Your task to perform on an android device: add a contact Image 0: 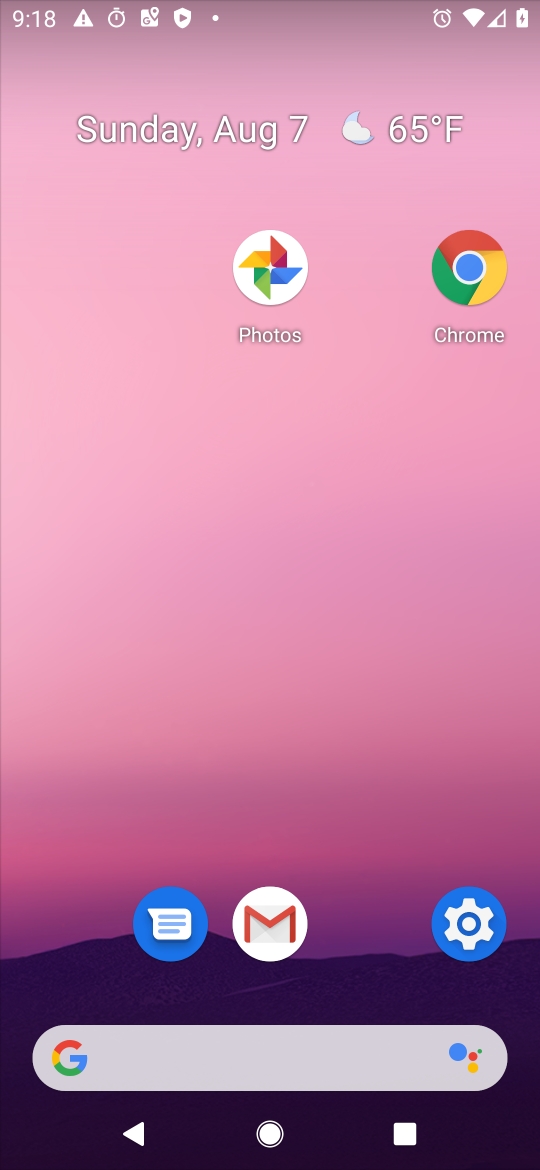
Step 0: drag from (339, 1079) to (386, 191)
Your task to perform on an android device: add a contact Image 1: 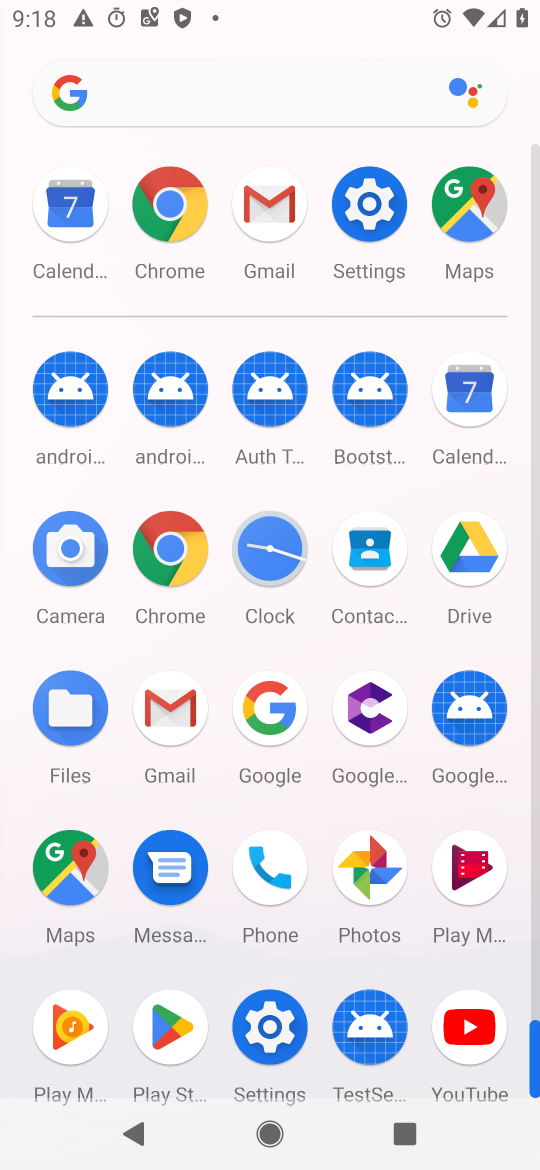
Step 1: click (279, 885)
Your task to perform on an android device: add a contact Image 2: 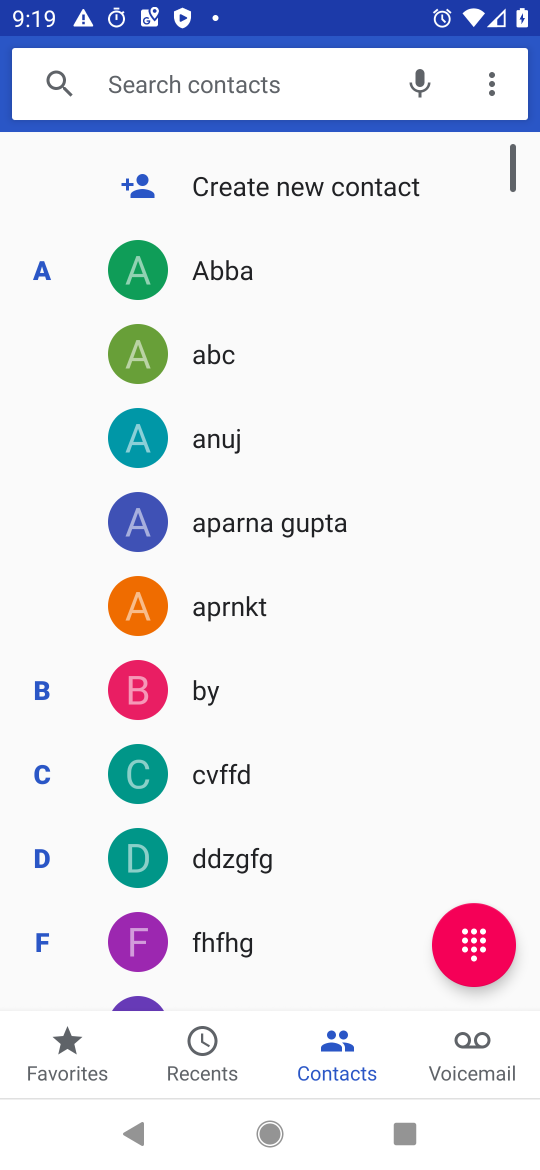
Step 2: click (297, 179)
Your task to perform on an android device: add a contact Image 3: 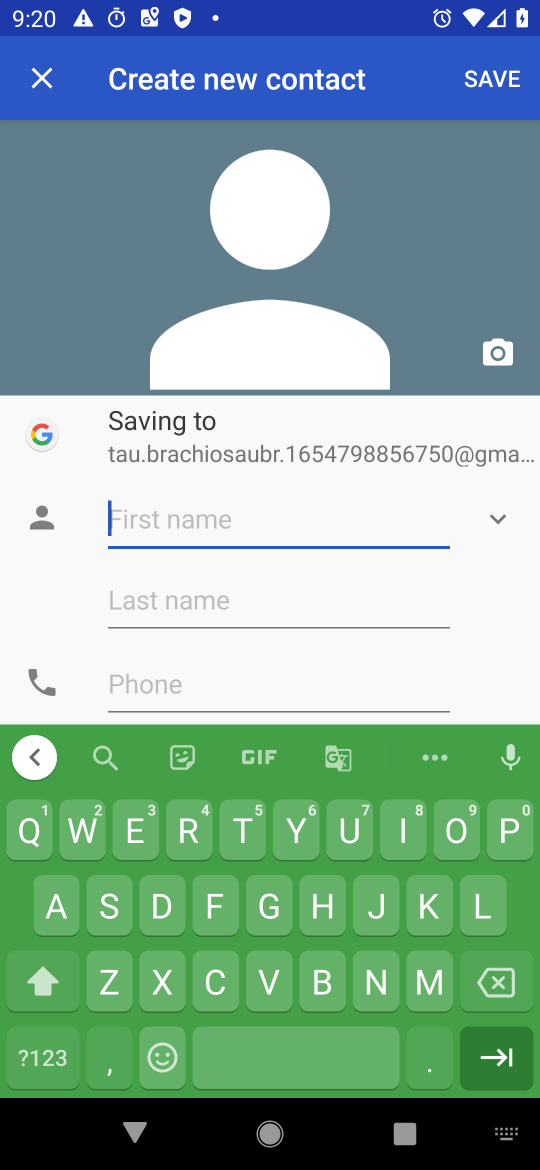
Step 3: click (102, 905)
Your task to perform on an android device: add a contact Image 4: 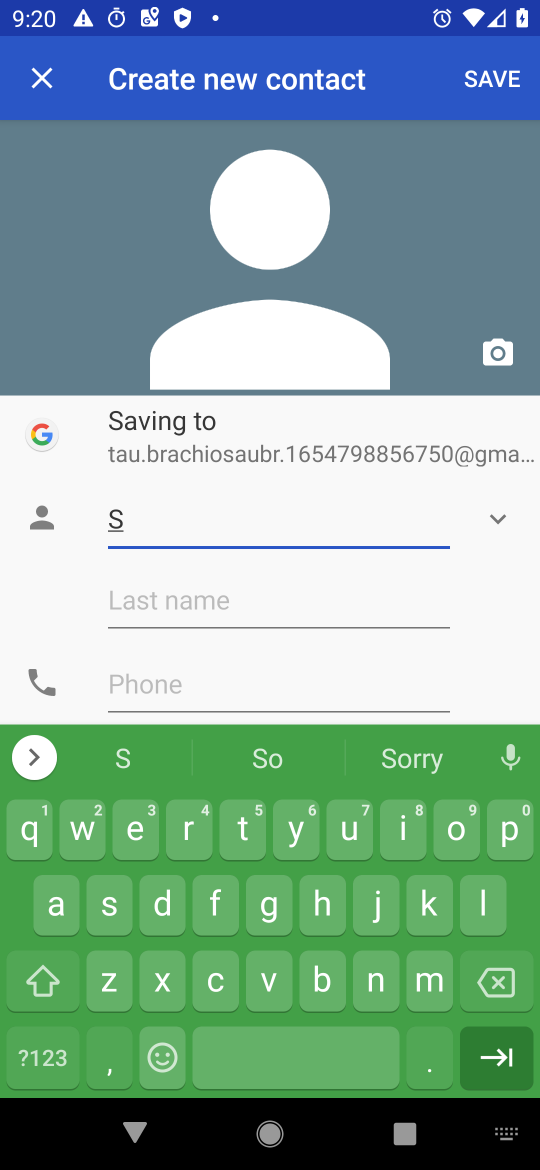
Step 4: click (240, 916)
Your task to perform on an android device: add a contact Image 5: 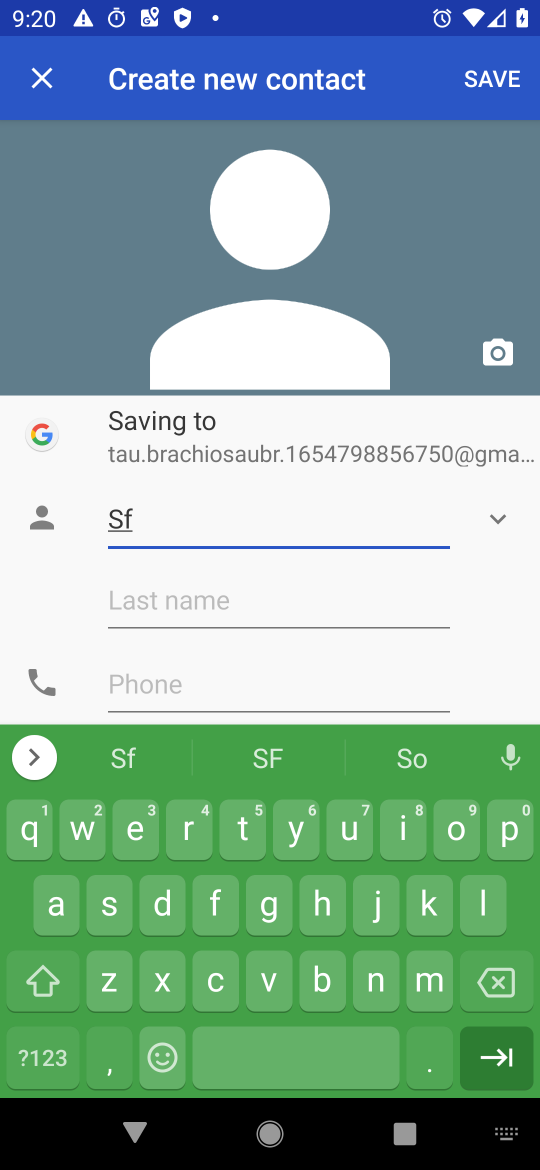
Step 5: click (148, 675)
Your task to perform on an android device: add a contact Image 6: 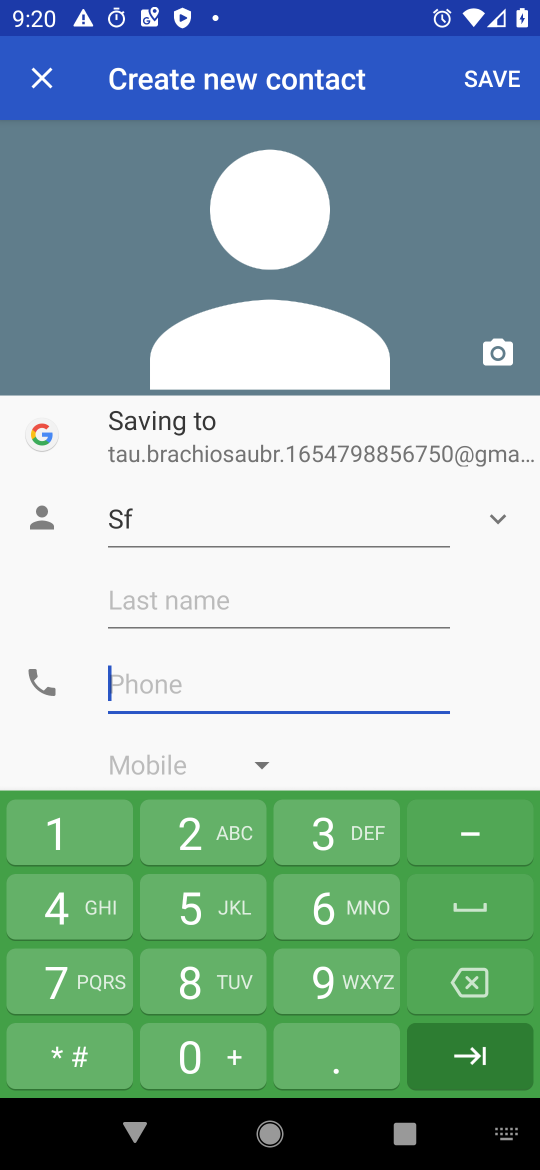
Step 6: click (299, 957)
Your task to perform on an android device: add a contact Image 7: 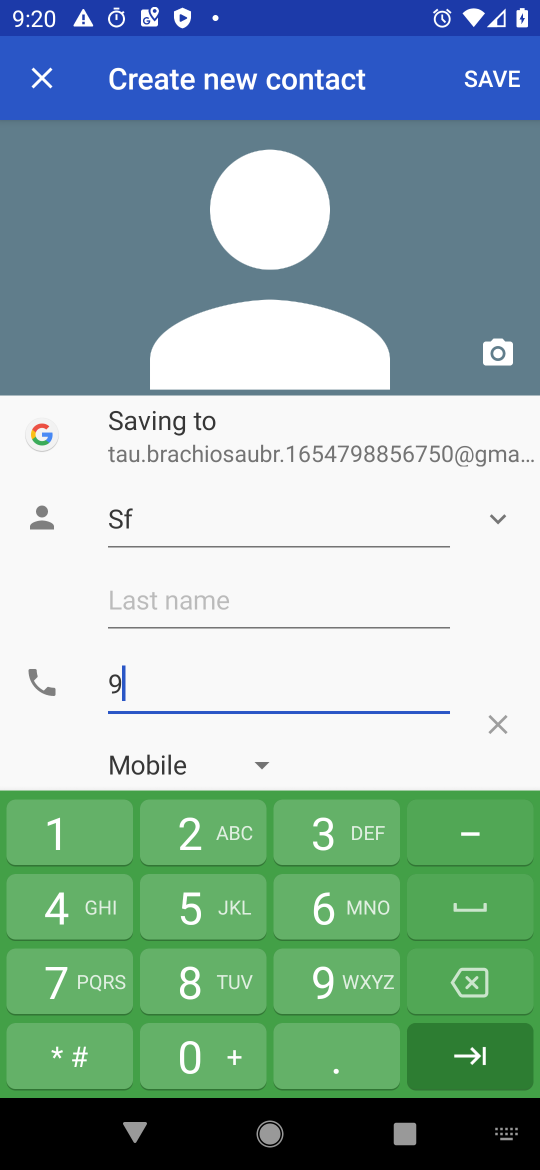
Step 7: click (201, 952)
Your task to perform on an android device: add a contact Image 8: 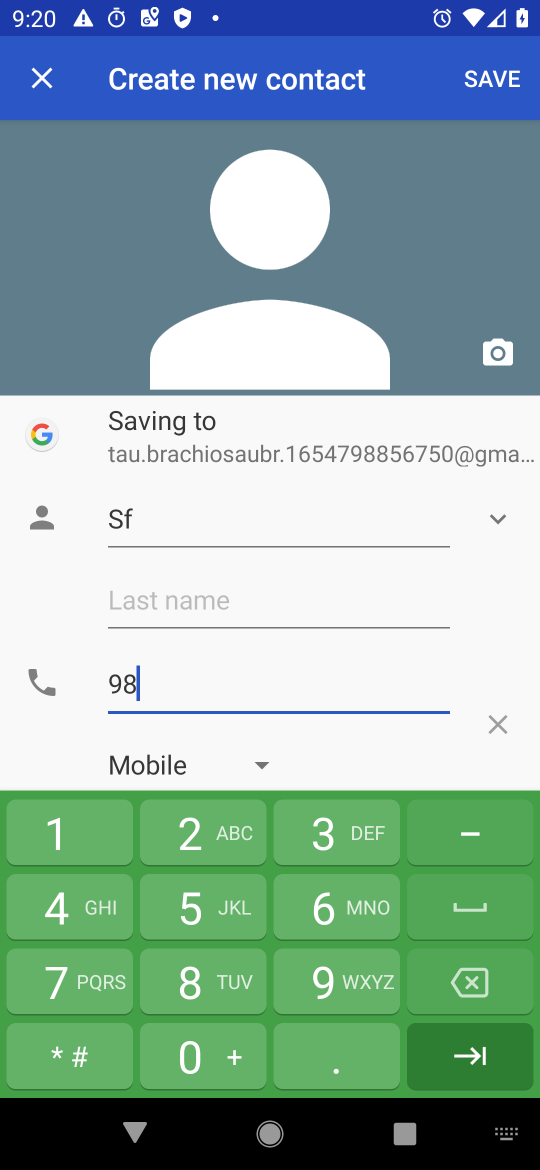
Step 8: click (211, 912)
Your task to perform on an android device: add a contact Image 9: 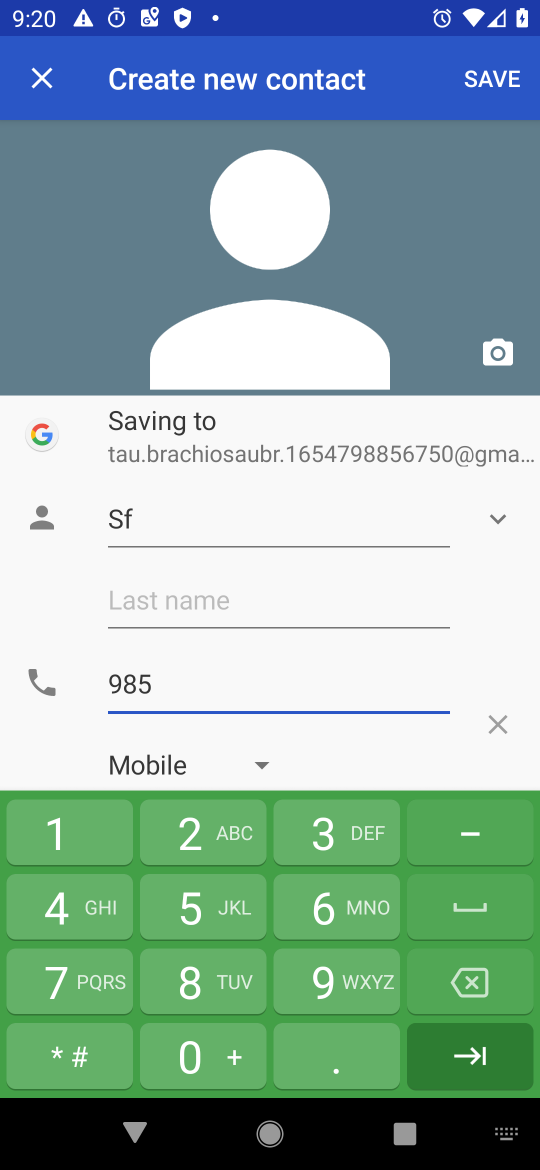
Step 9: click (333, 908)
Your task to perform on an android device: add a contact Image 10: 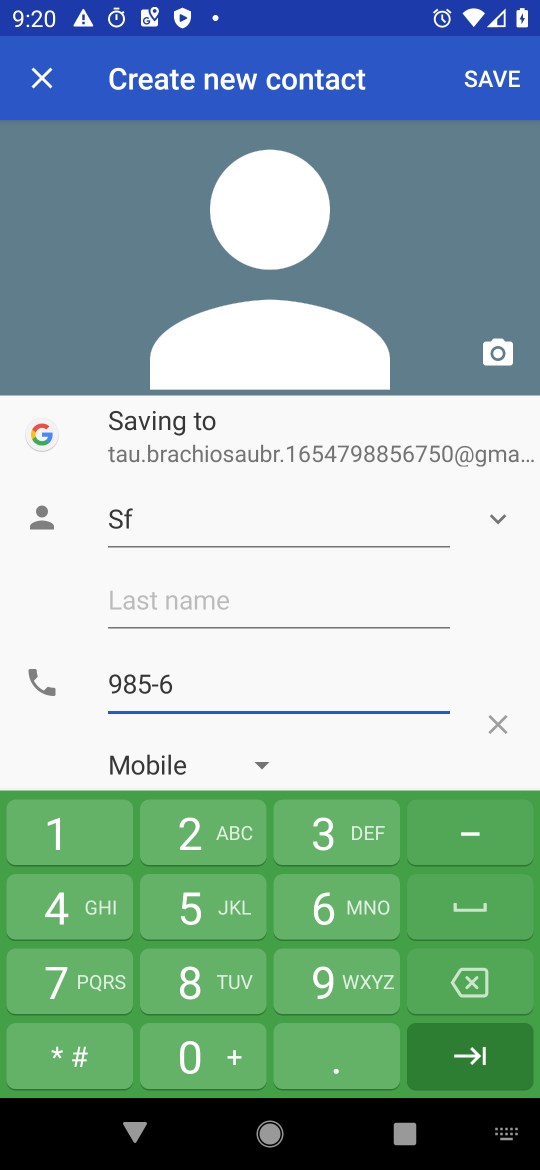
Step 10: click (487, 72)
Your task to perform on an android device: add a contact Image 11: 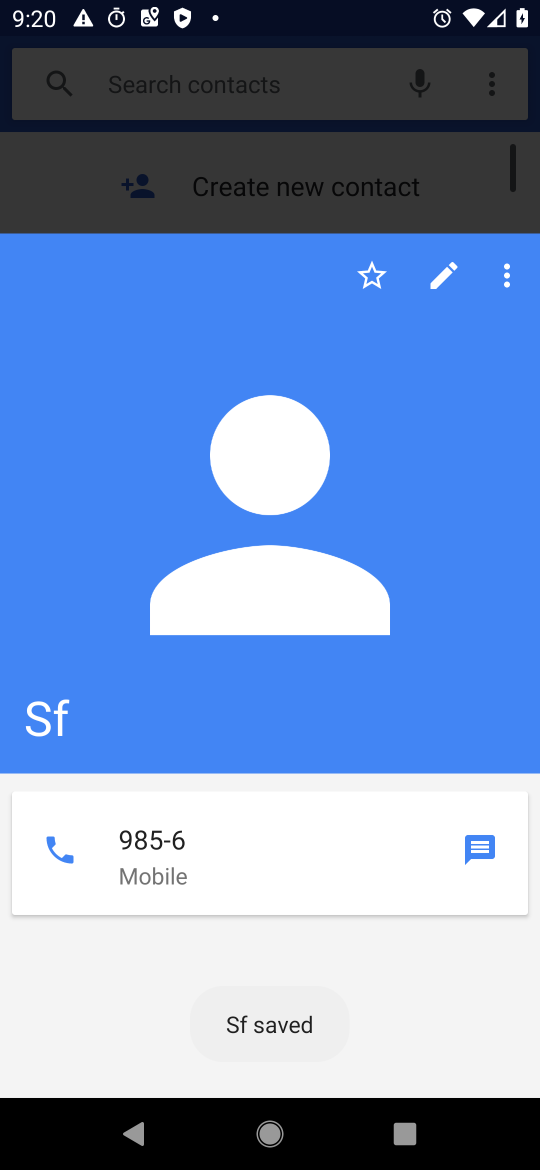
Step 11: task complete